Your task to perform on an android device: Set the phone to "Do not disturb". Image 0: 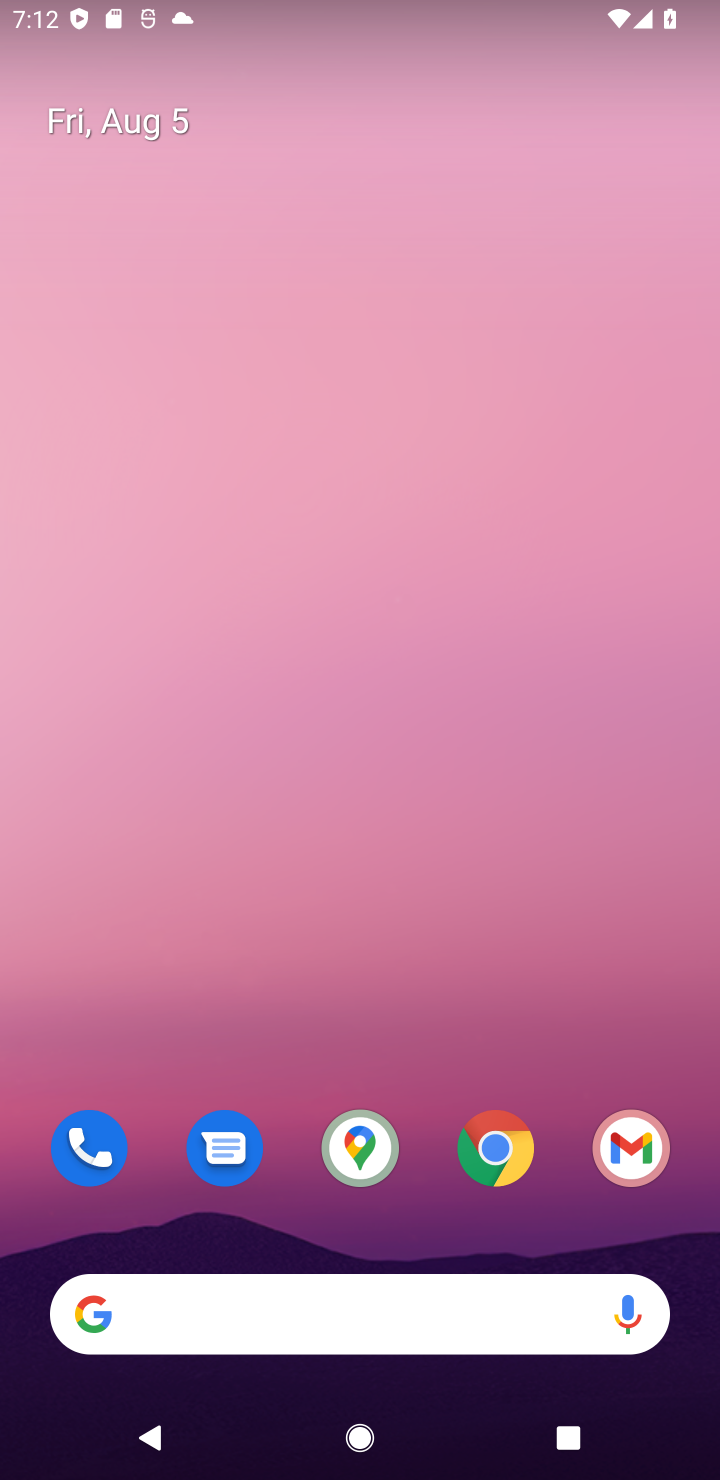
Step 0: drag from (412, 1235) to (366, 274)
Your task to perform on an android device: Set the phone to "Do not disturb". Image 1: 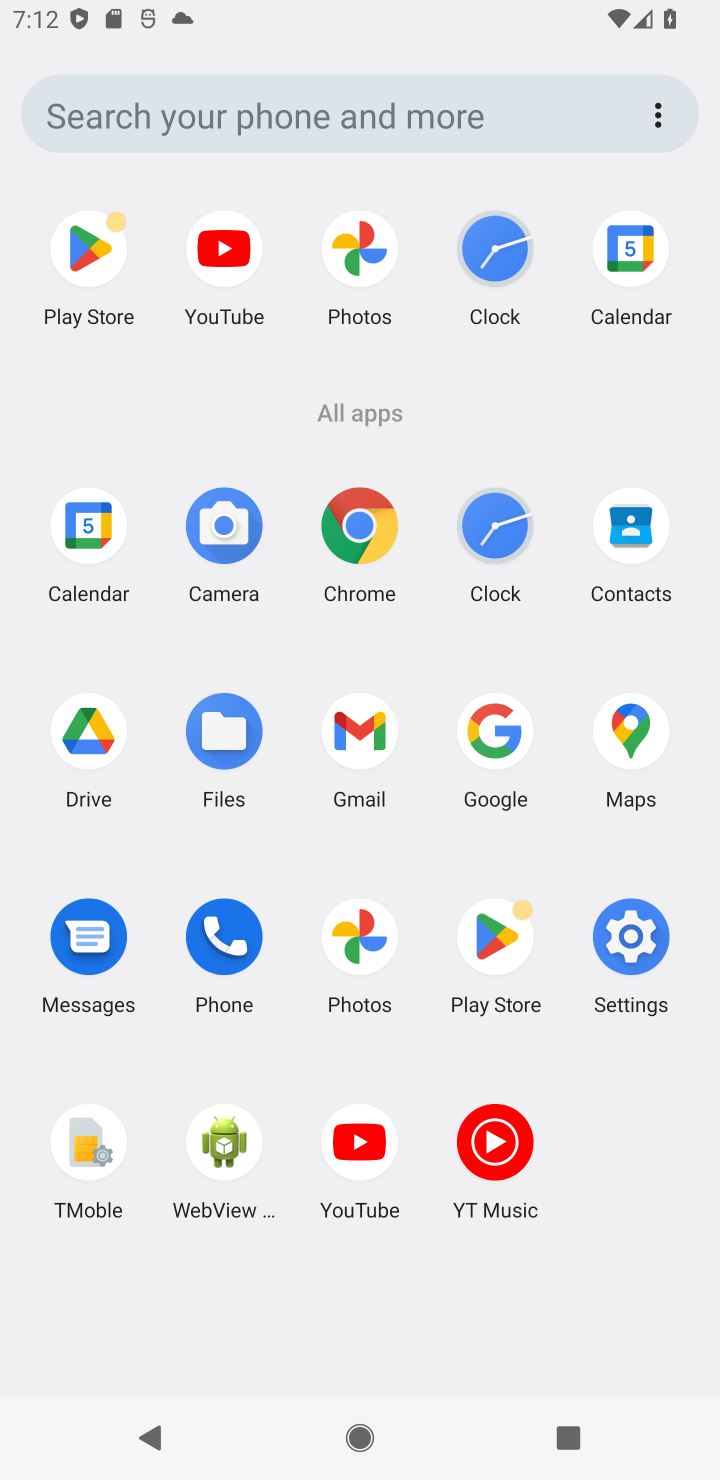
Step 1: click (607, 918)
Your task to perform on an android device: Set the phone to "Do not disturb". Image 2: 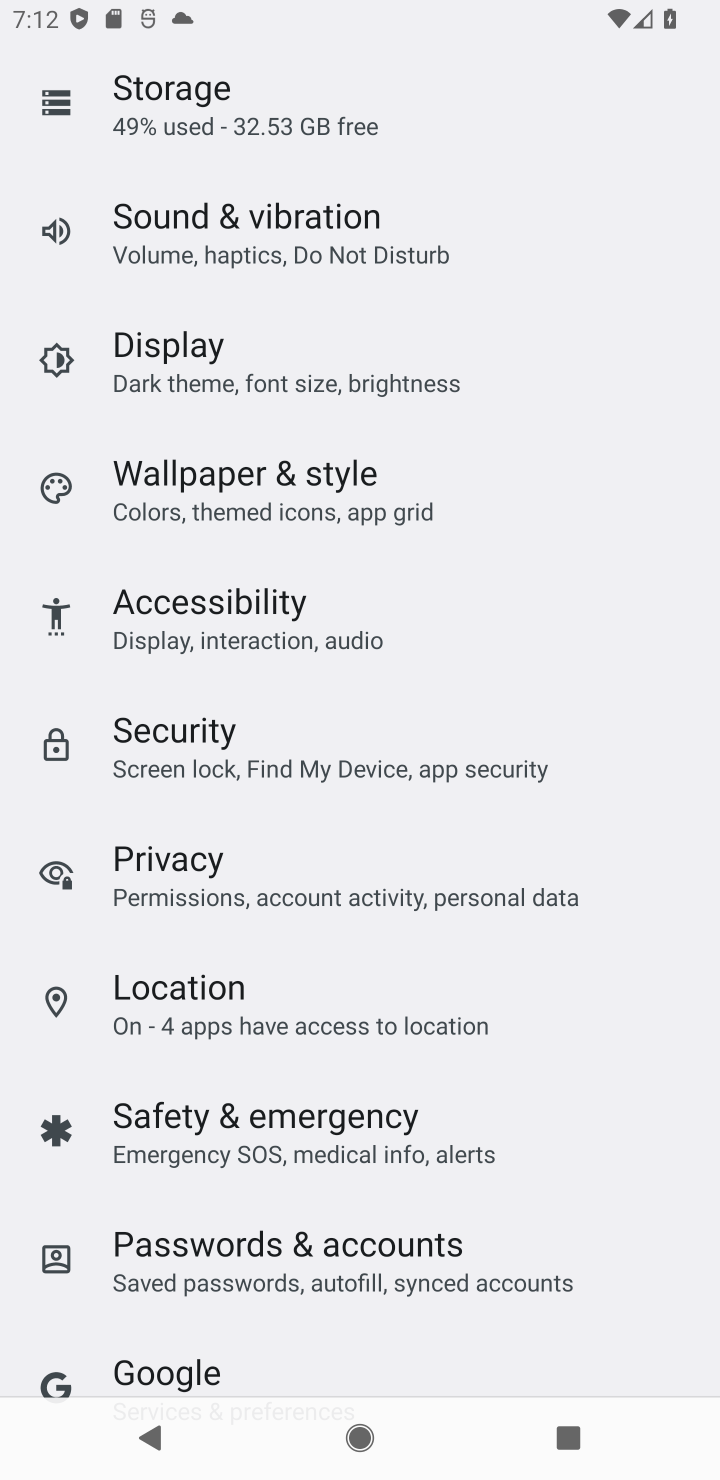
Step 2: task complete